Your task to perform on an android device: Open Maps and search for coffee Image 0: 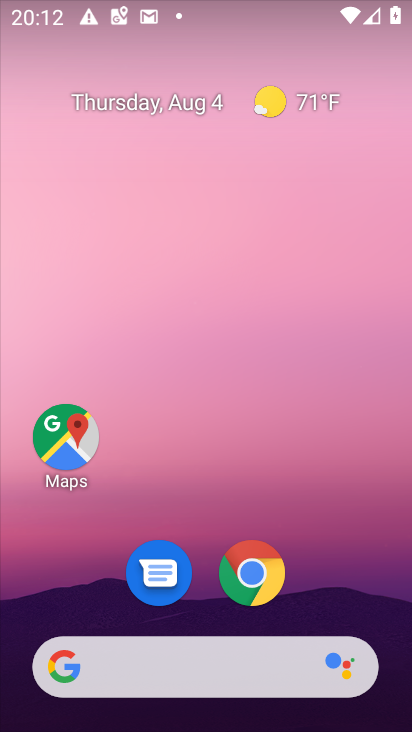
Step 0: click (58, 430)
Your task to perform on an android device: Open Maps and search for coffee Image 1: 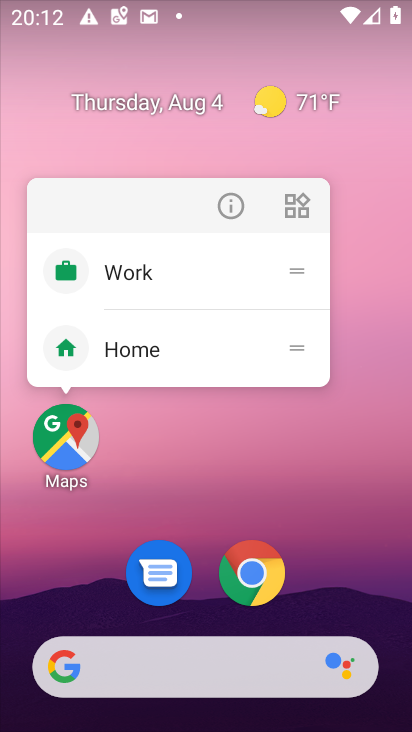
Step 1: click (58, 452)
Your task to perform on an android device: Open Maps and search for coffee Image 2: 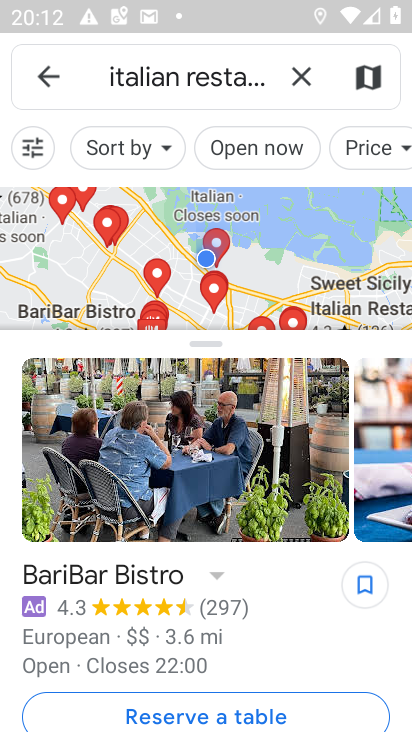
Step 2: click (313, 79)
Your task to perform on an android device: Open Maps and search for coffee Image 3: 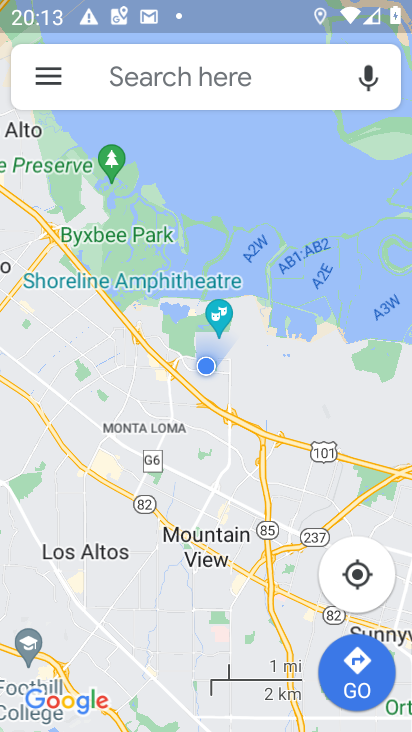
Step 3: click (208, 82)
Your task to perform on an android device: Open Maps and search for coffee Image 4: 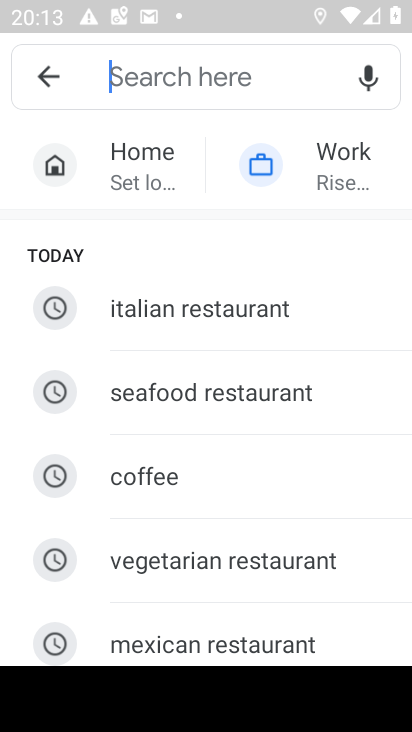
Step 4: click (303, 467)
Your task to perform on an android device: Open Maps and search for coffee Image 5: 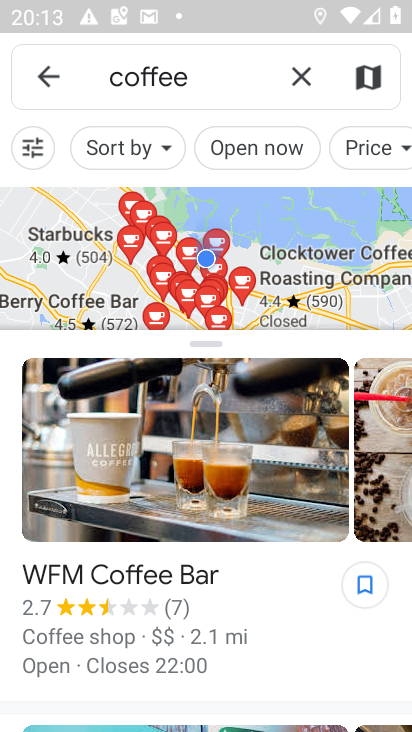
Step 5: task complete